Your task to perform on an android device: Open the Play Movies app and select the watchlist tab. Image 0: 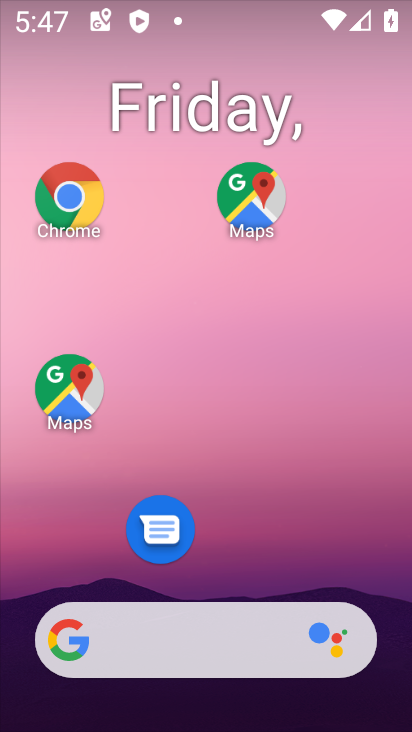
Step 0: drag from (276, 458) to (296, 158)
Your task to perform on an android device: Open the Play Movies app and select the watchlist tab. Image 1: 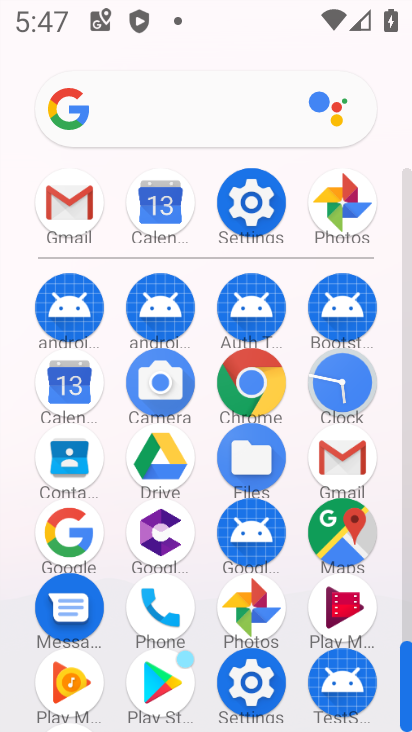
Step 1: click (343, 616)
Your task to perform on an android device: Open the Play Movies app and select the watchlist tab. Image 2: 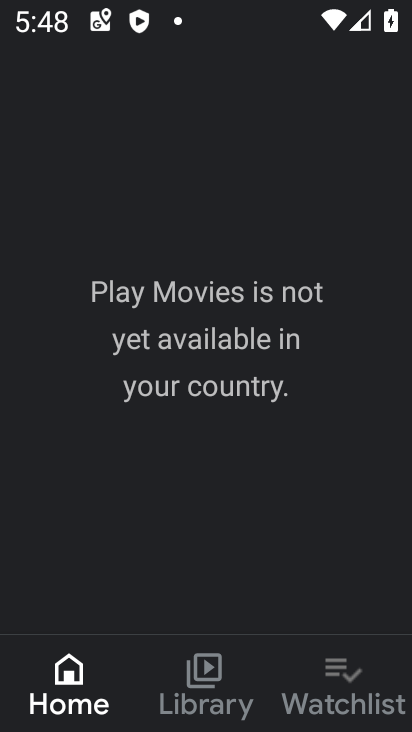
Step 2: click (337, 688)
Your task to perform on an android device: Open the Play Movies app and select the watchlist tab. Image 3: 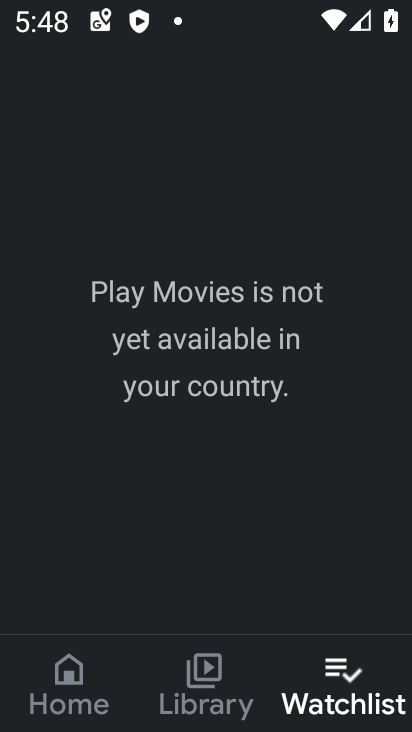
Step 3: task complete